Your task to perform on an android device: change the clock display to show seconds Image 0: 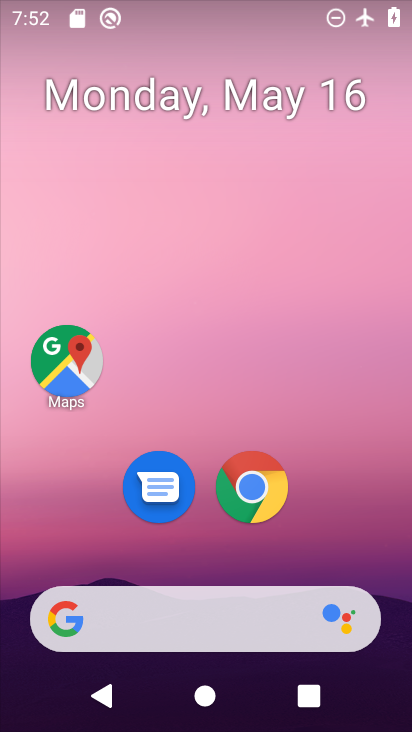
Step 0: drag from (333, 542) to (361, 85)
Your task to perform on an android device: change the clock display to show seconds Image 1: 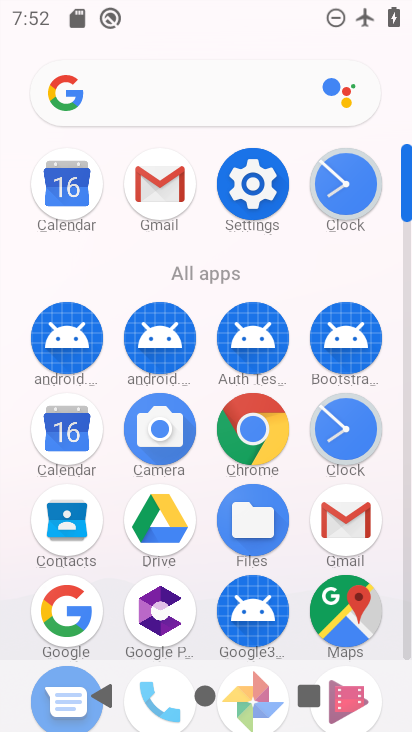
Step 1: click (341, 191)
Your task to perform on an android device: change the clock display to show seconds Image 2: 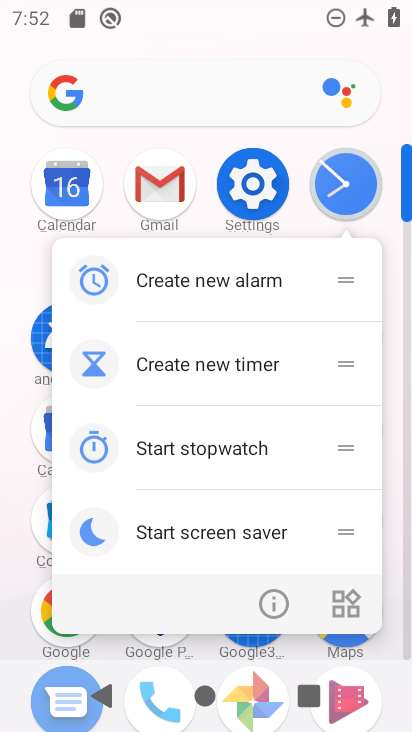
Step 2: click (345, 177)
Your task to perform on an android device: change the clock display to show seconds Image 3: 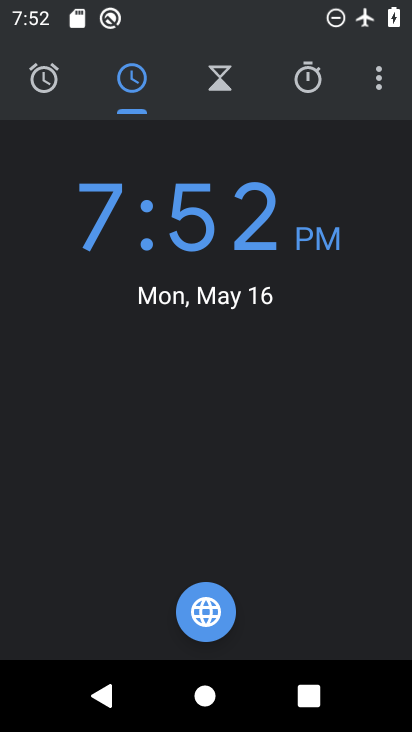
Step 3: click (372, 91)
Your task to perform on an android device: change the clock display to show seconds Image 4: 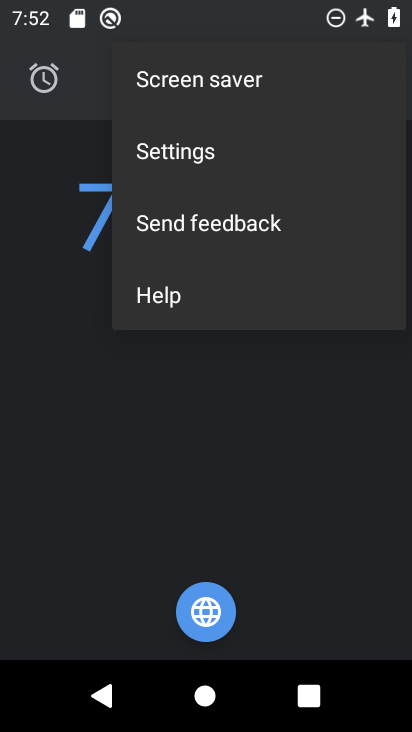
Step 4: click (286, 146)
Your task to perform on an android device: change the clock display to show seconds Image 5: 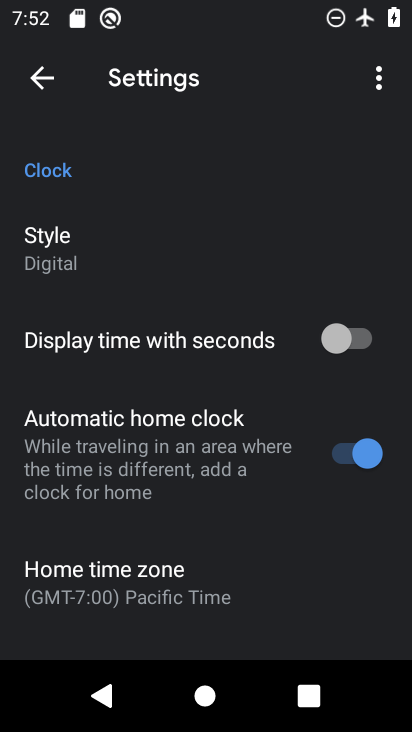
Step 5: click (354, 335)
Your task to perform on an android device: change the clock display to show seconds Image 6: 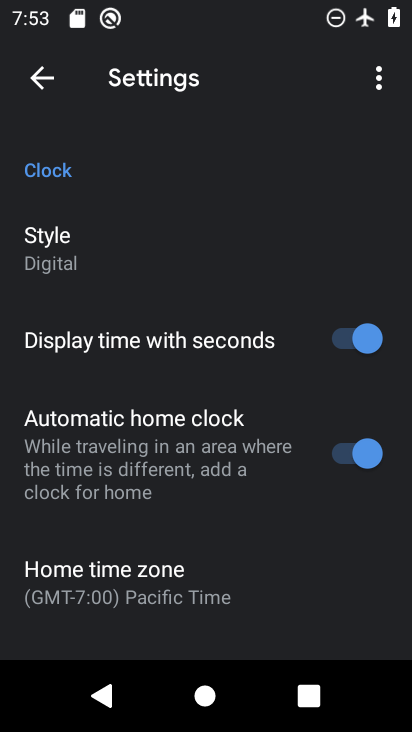
Step 6: task complete